Your task to perform on an android device: Open the stopwatch Image 0: 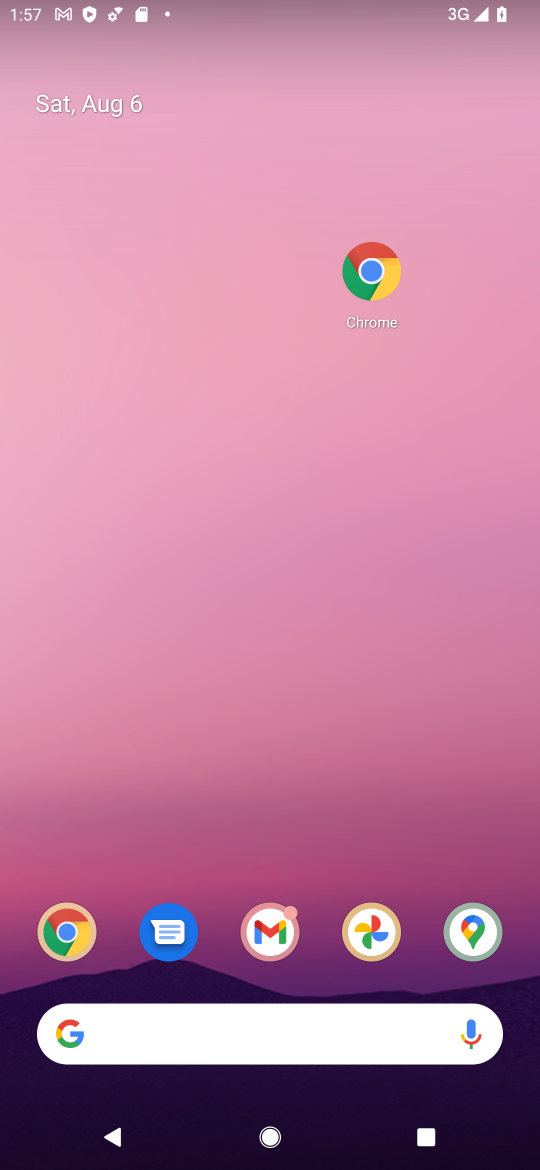
Step 0: drag from (330, 972) to (266, 27)
Your task to perform on an android device: Open the stopwatch Image 1: 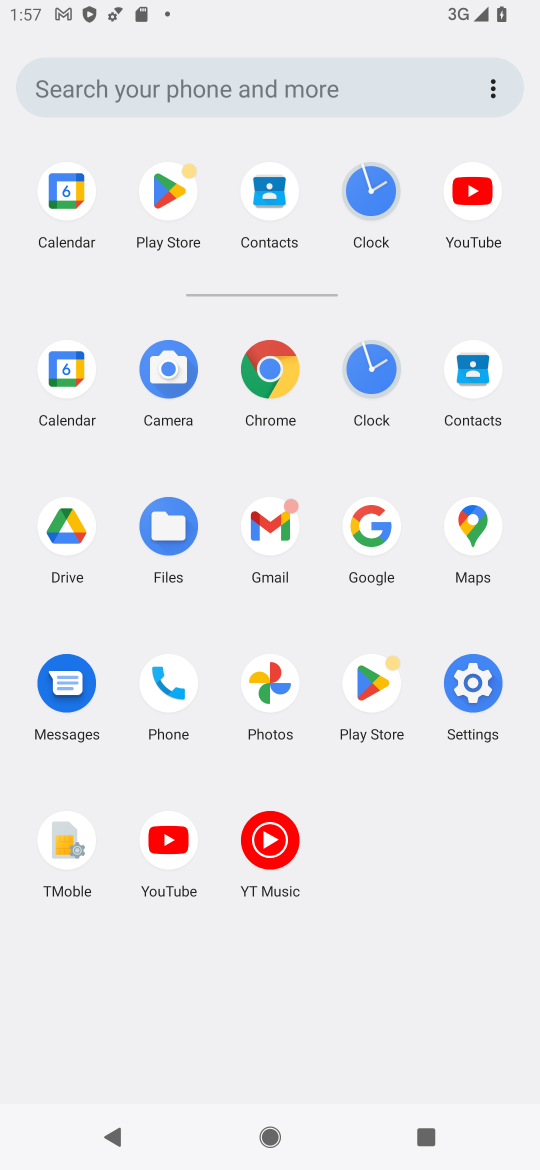
Step 1: click (367, 356)
Your task to perform on an android device: Open the stopwatch Image 2: 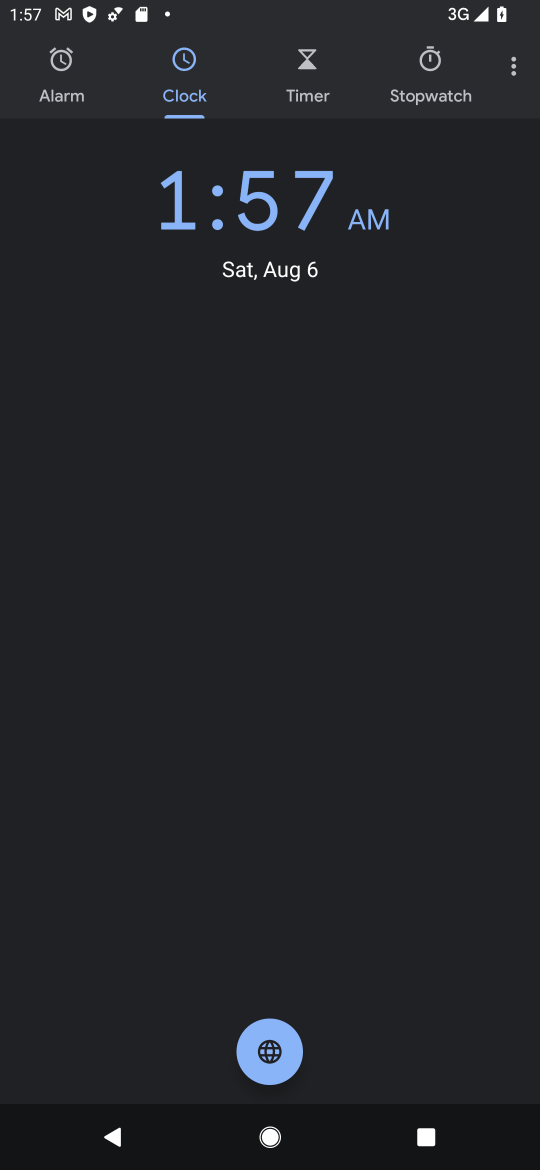
Step 2: click (425, 69)
Your task to perform on an android device: Open the stopwatch Image 3: 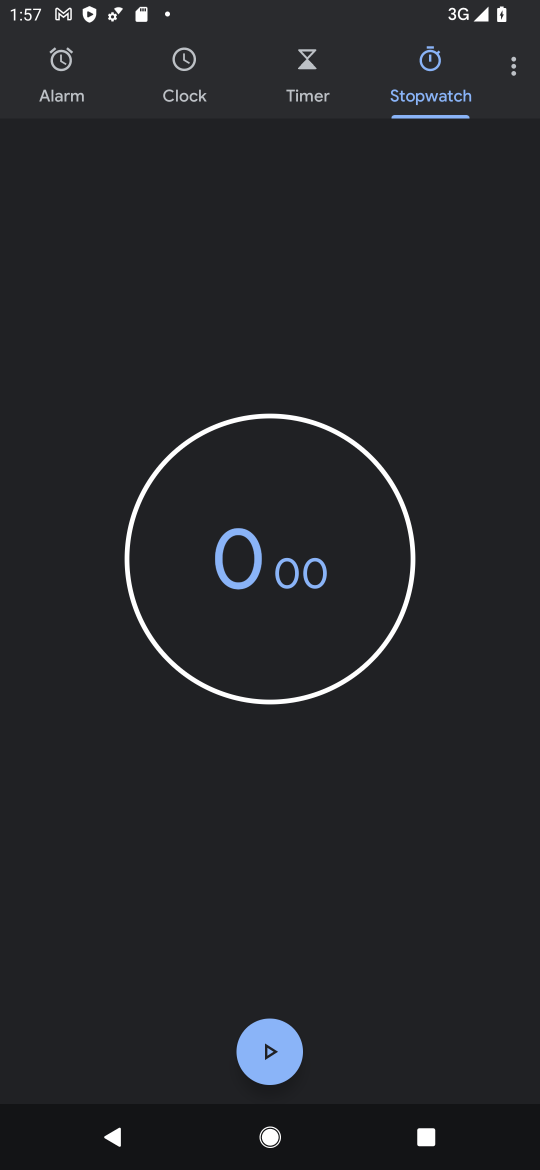
Step 3: task complete